Your task to perform on an android device: Search for "razer blade" on bestbuy, select the first entry, add it to the cart, then select checkout. Image 0: 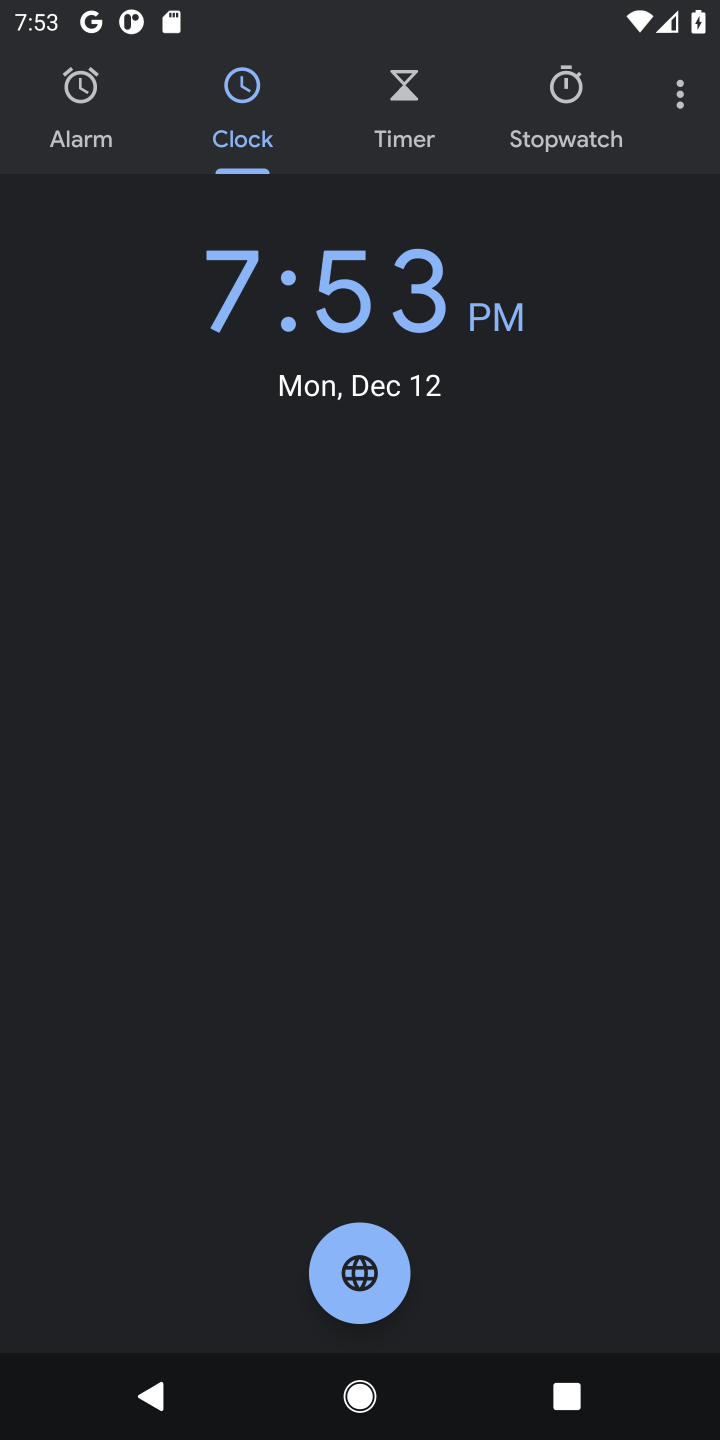
Step 0: press home button
Your task to perform on an android device: Search for "razer blade" on bestbuy, select the first entry, add it to the cart, then select checkout. Image 1: 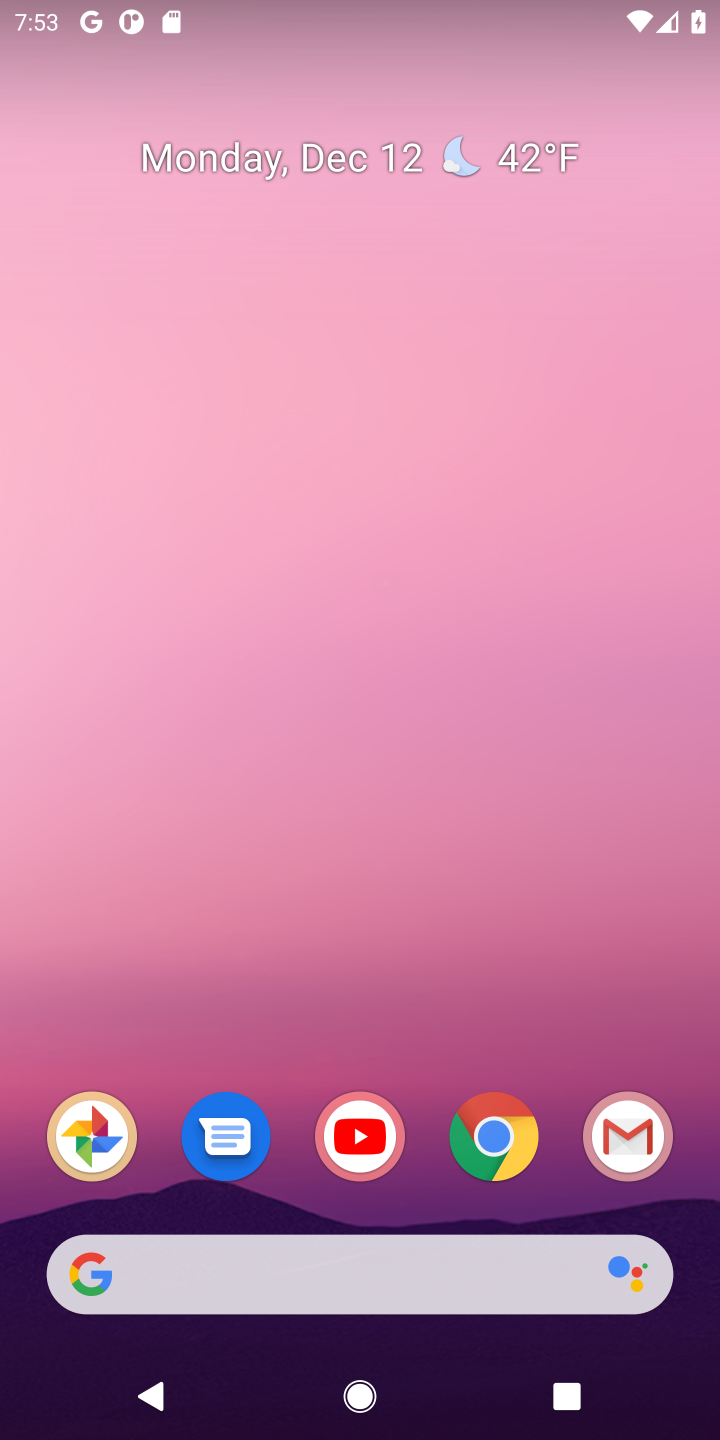
Step 1: click (493, 1140)
Your task to perform on an android device: Search for "razer blade" on bestbuy, select the first entry, add it to the cart, then select checkout. Image 2: 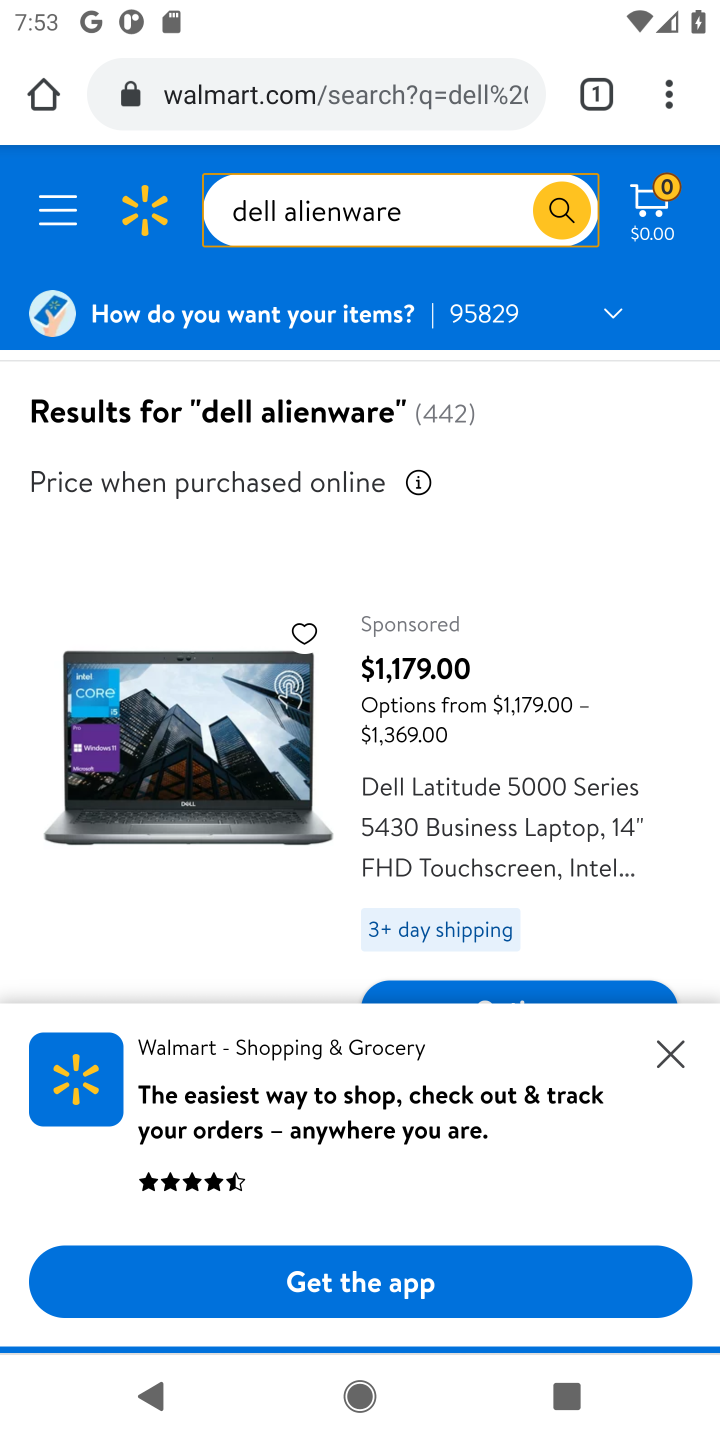
Step 2: click (299, 87)
Your task to perform on an android device: Search for "razer blade" on bestbuy, select the first entry, add it to the cart, then select checkout. Image 3: 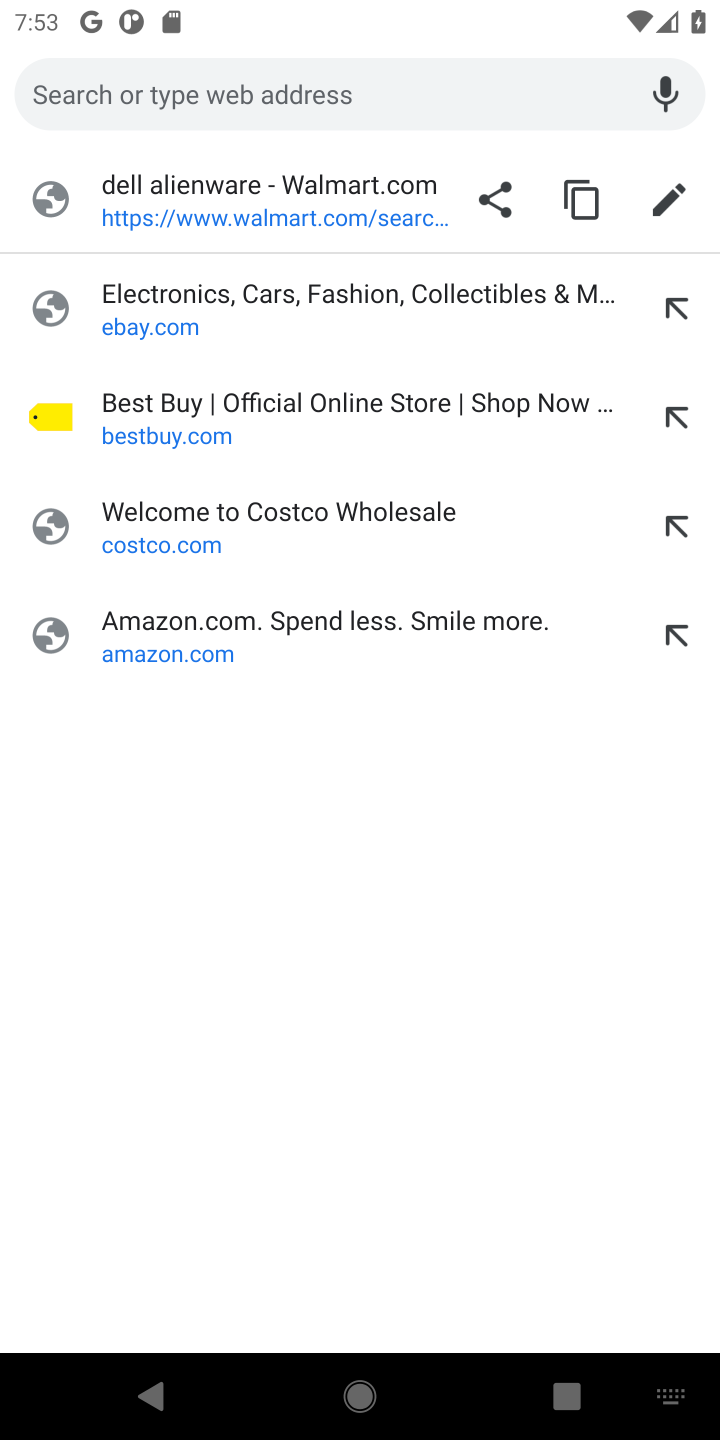
Step 3: click (124, 416)
Your task to perform on an android device: Search for "razer blade" on bestbuy, select the first entry, add it to the cart, then select checkout. Image 4: 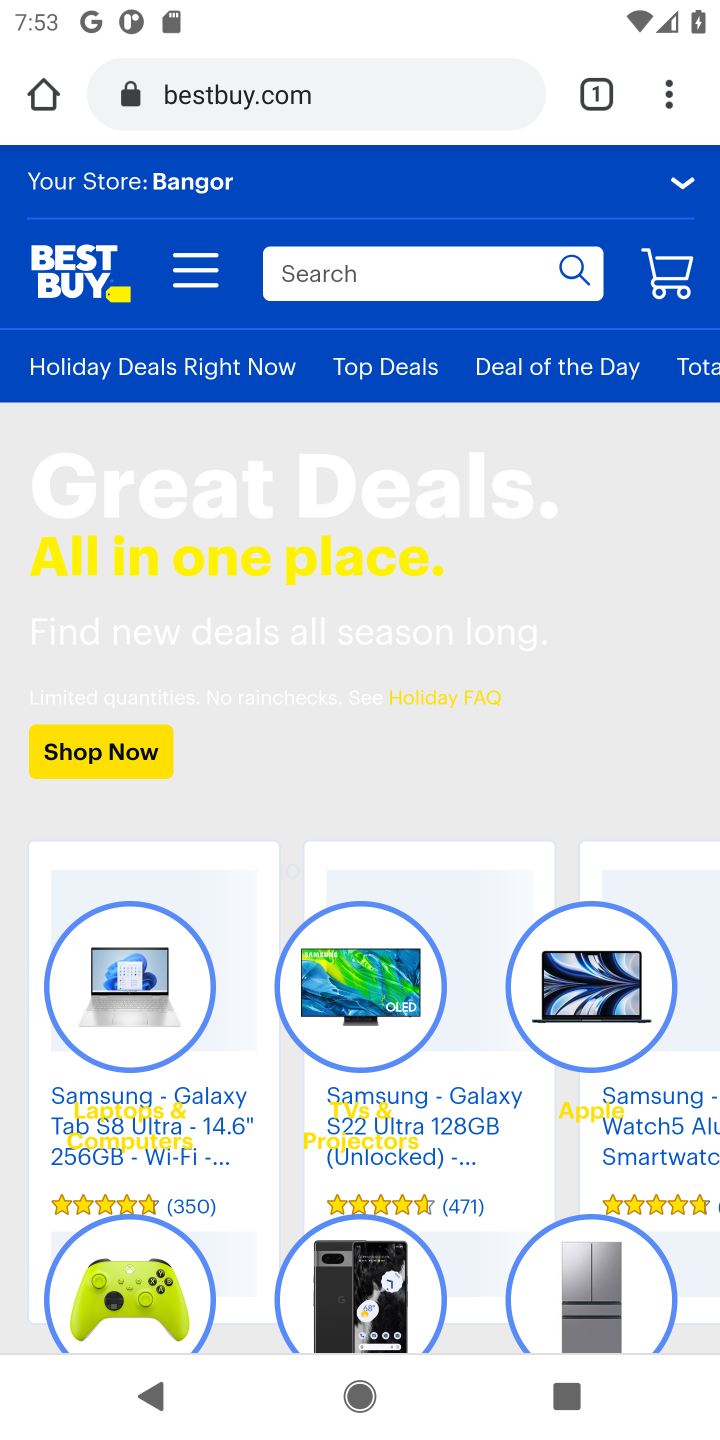
Step 4: click (324, 291)
Your task to perform on an android device: Search for "razer blade" on bestbuy, select the first entry, add it to the cart, then select checkout. Image 5: 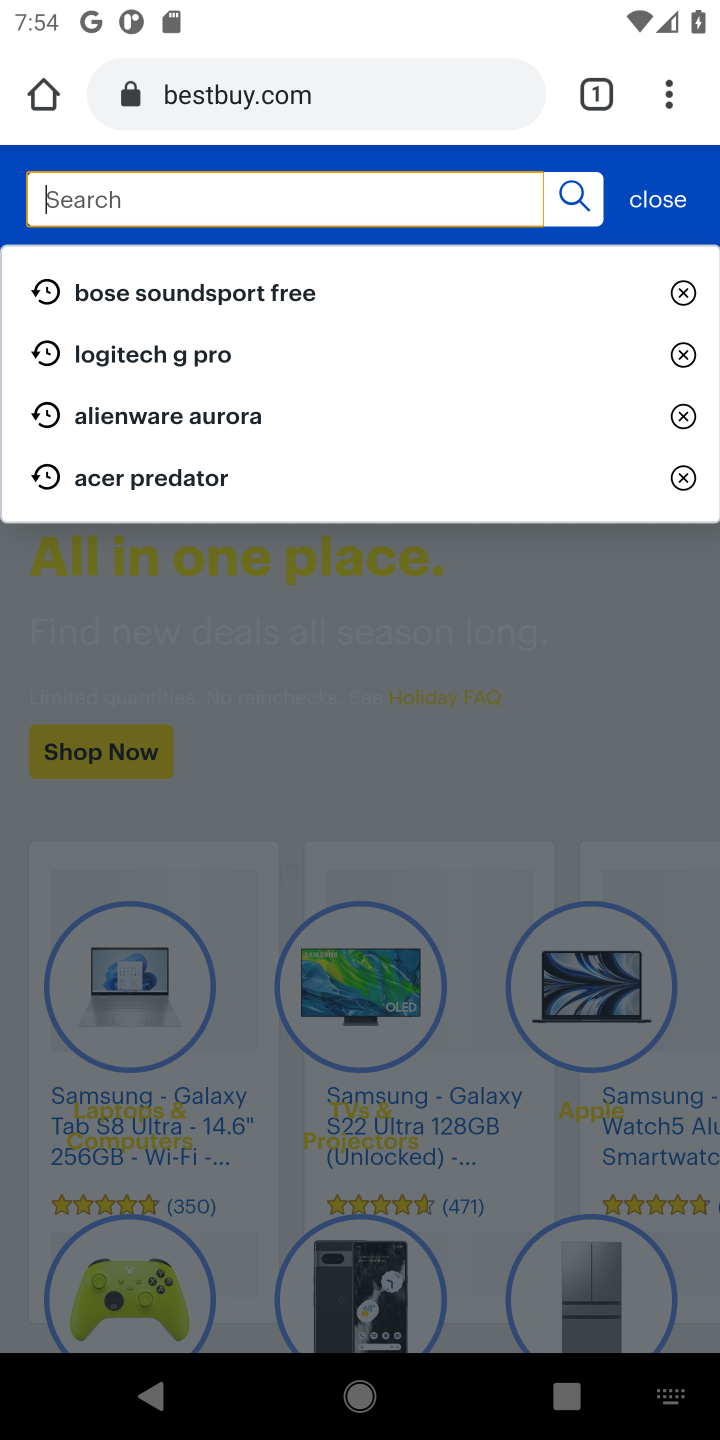
Step 5: type "razer blade"
Your task to perform on an android device: Search for "razer blade" on bestbuy, select the first entry, add it to the cart, then select checkout. Image 6: 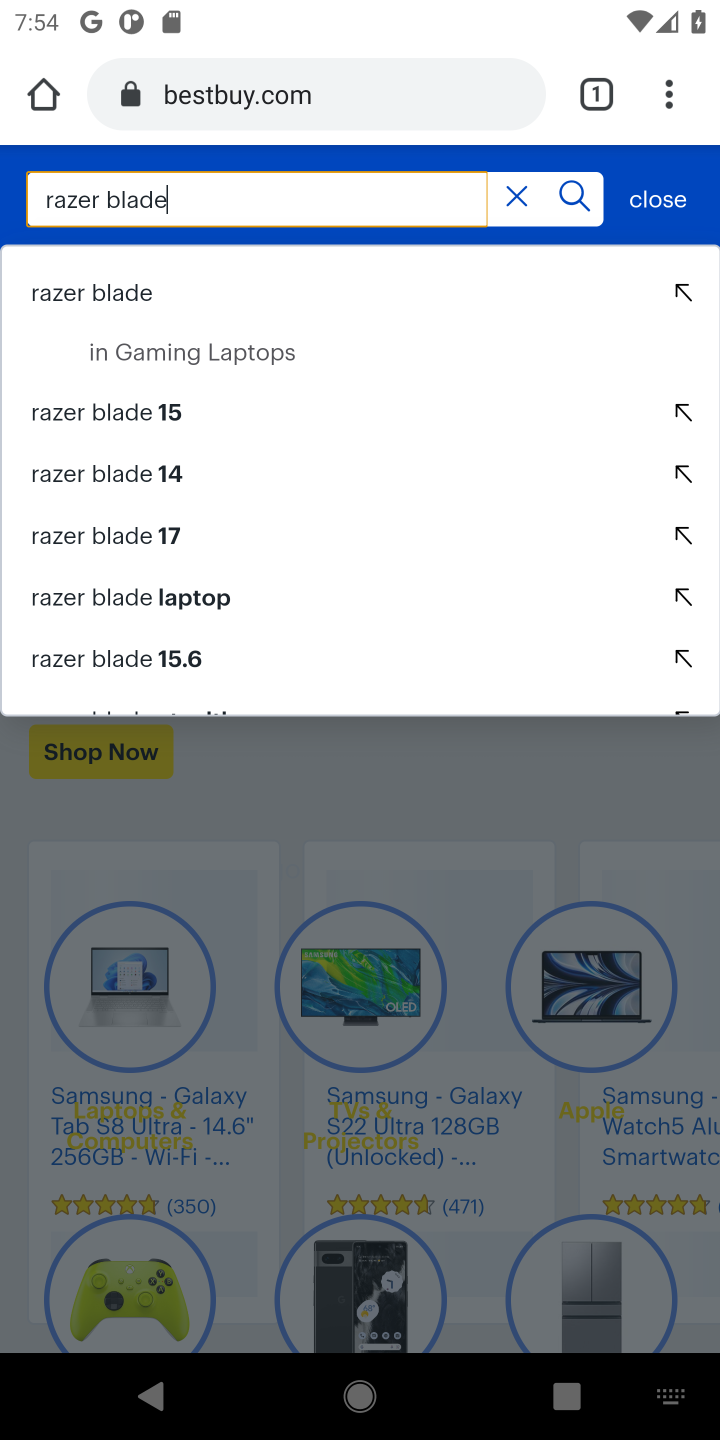
Step 6: click (61, 304)
Your task to perform on an android device: Search for "razer blade" on bestbuy, select the first entry, add it to the cart, then select checkout. Image 7: 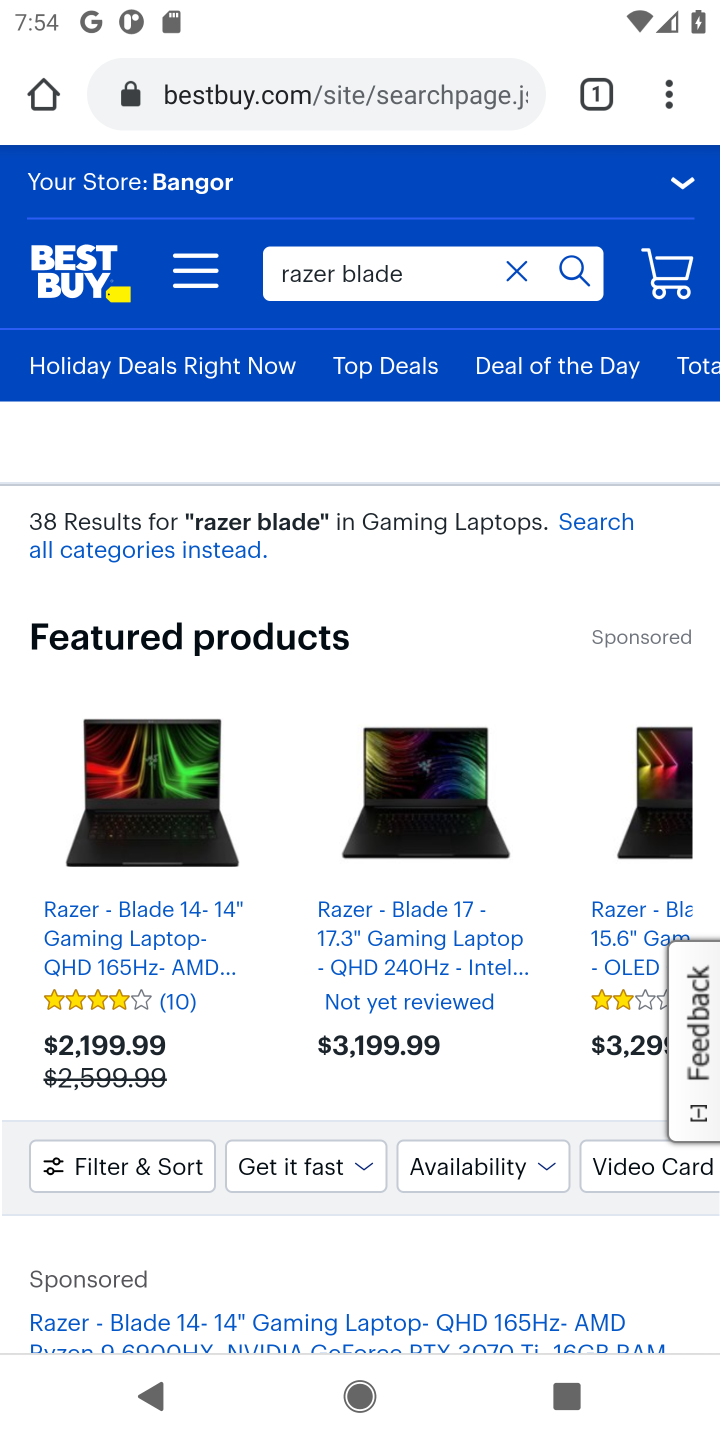
Step 7: drag from (272, 876) to (303, 510)
Your task to perform on an android device: Search for "razer blade" on bestbuy, select the first entry, add it to the cart, then select checkout. Image 8: 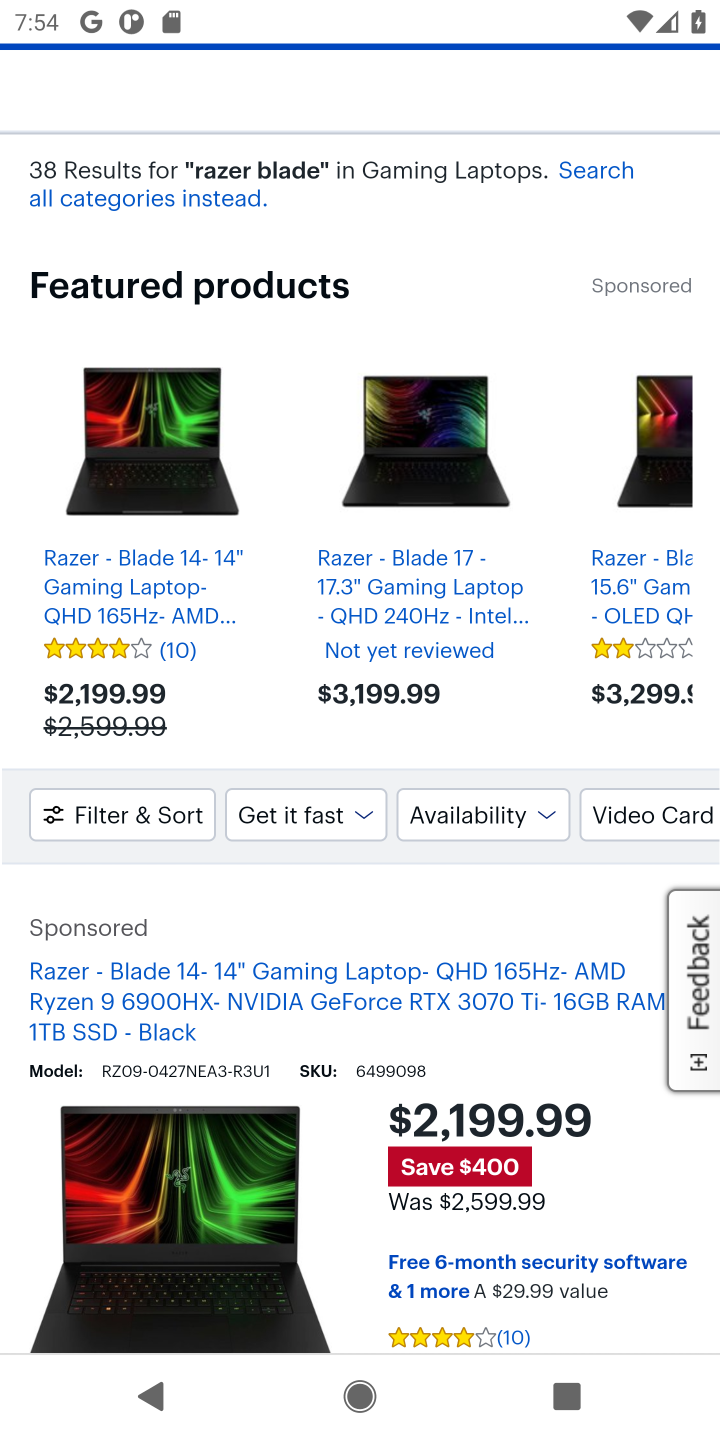
Step 8: drag from (409, 890) to (395, 523)
Your task to perform on an android device: Search for "razer blade" on bestbuy, select the first entry, add it to the cart, then select checkout. Image 9: 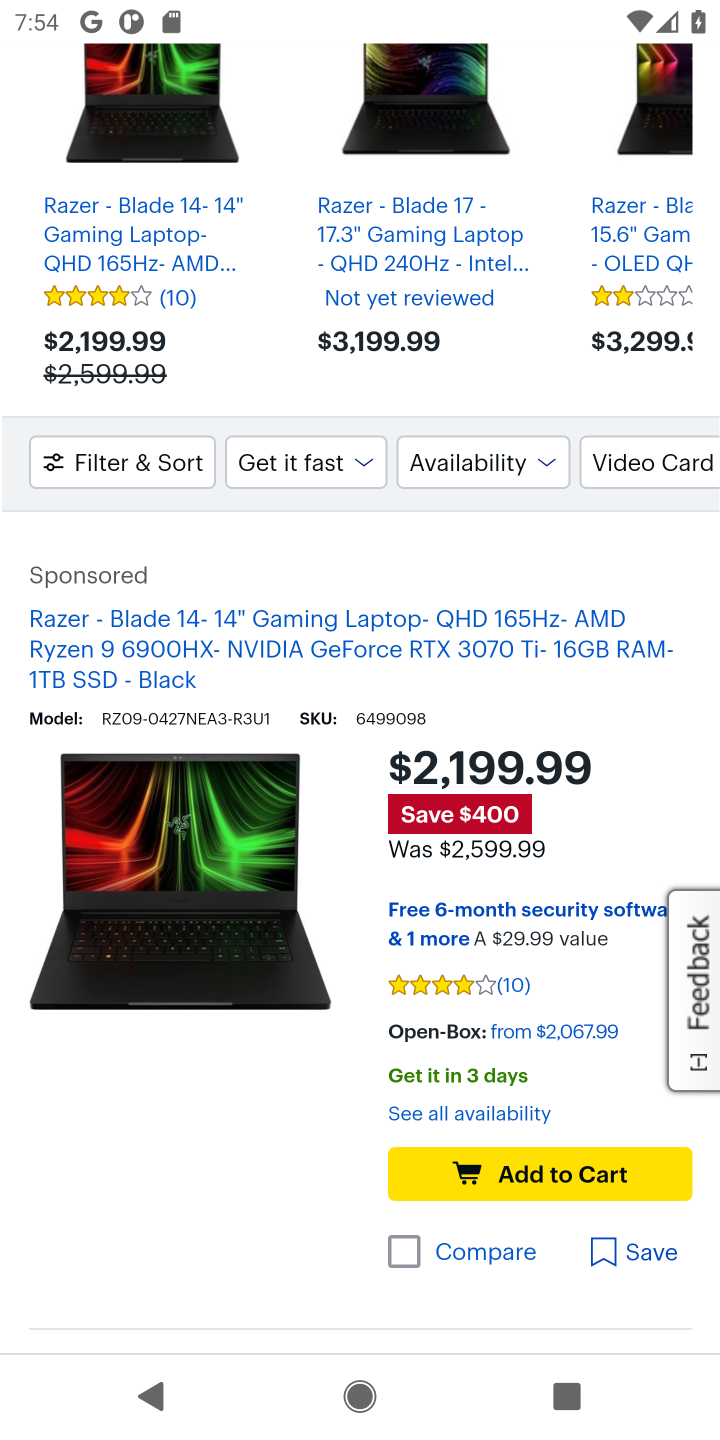
Step 9: click (508, 1181)
Your task to perform on an android device: Search for "razer blade" on bestbuy, select the first entry, add it to the cart, then select checkout. Image 10: 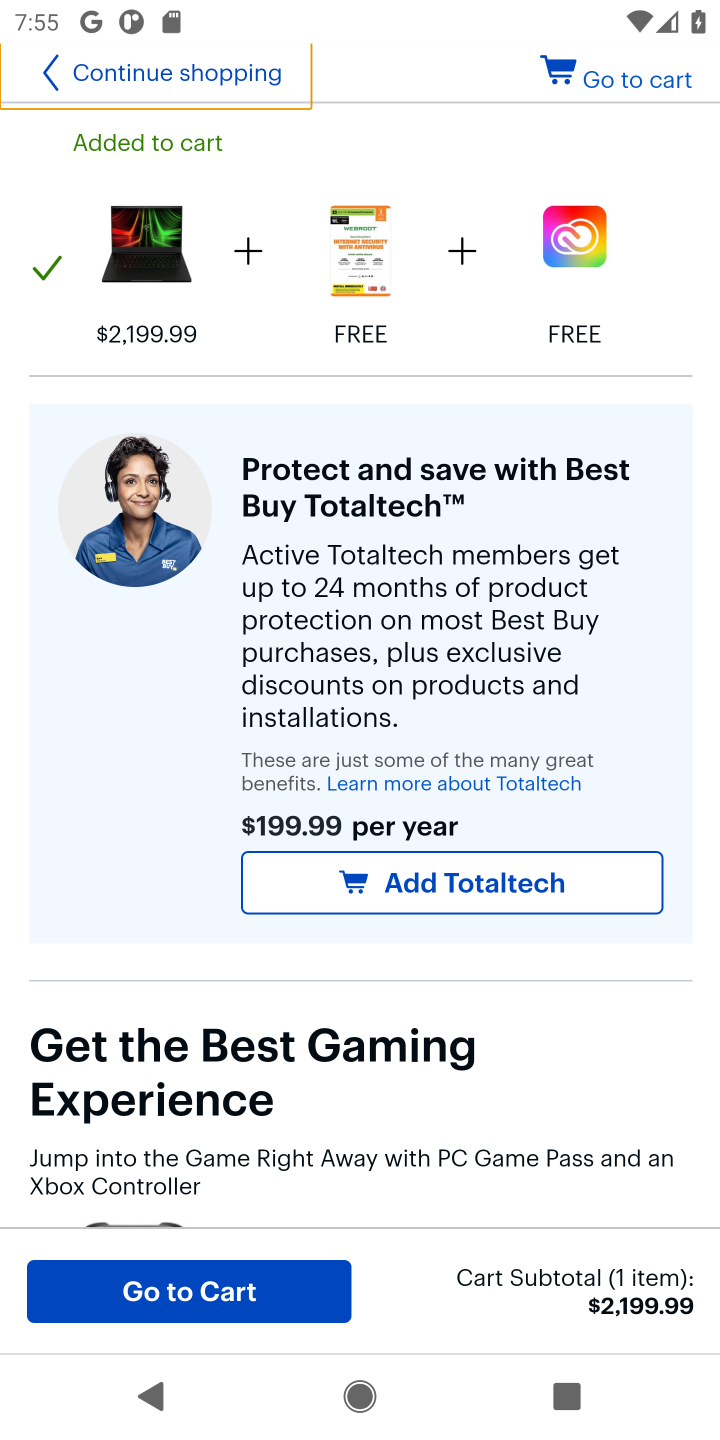
Step 10: click (614, 83)
Your task to perform on an android device: Search for "razer blade" on bestbuy, select the first entry, add it to the cart, then select checkout. Image 11: 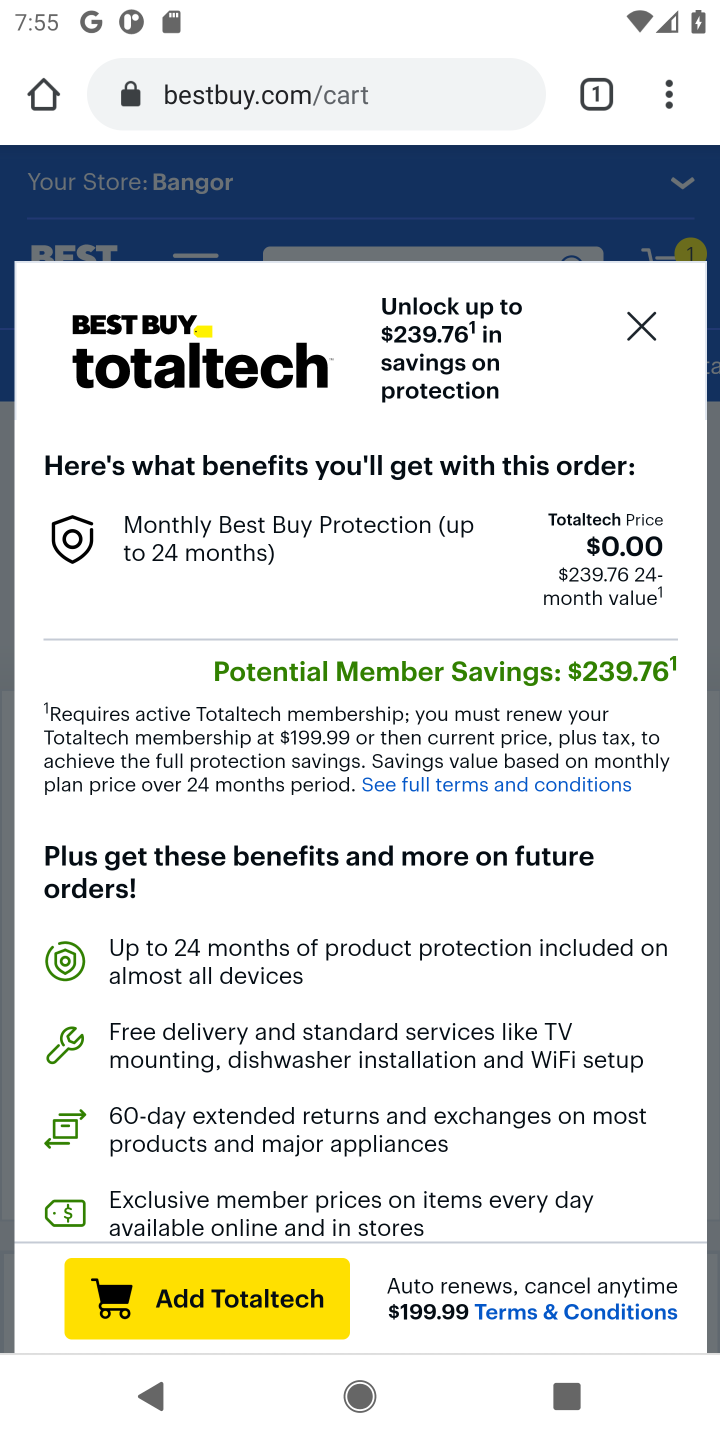
Step 11: click (635, 334)
Your task to perform on an android device: Search for "razer blade" on bestbuy, select the first entry, add it to the cart, then select checkout. Image 12: 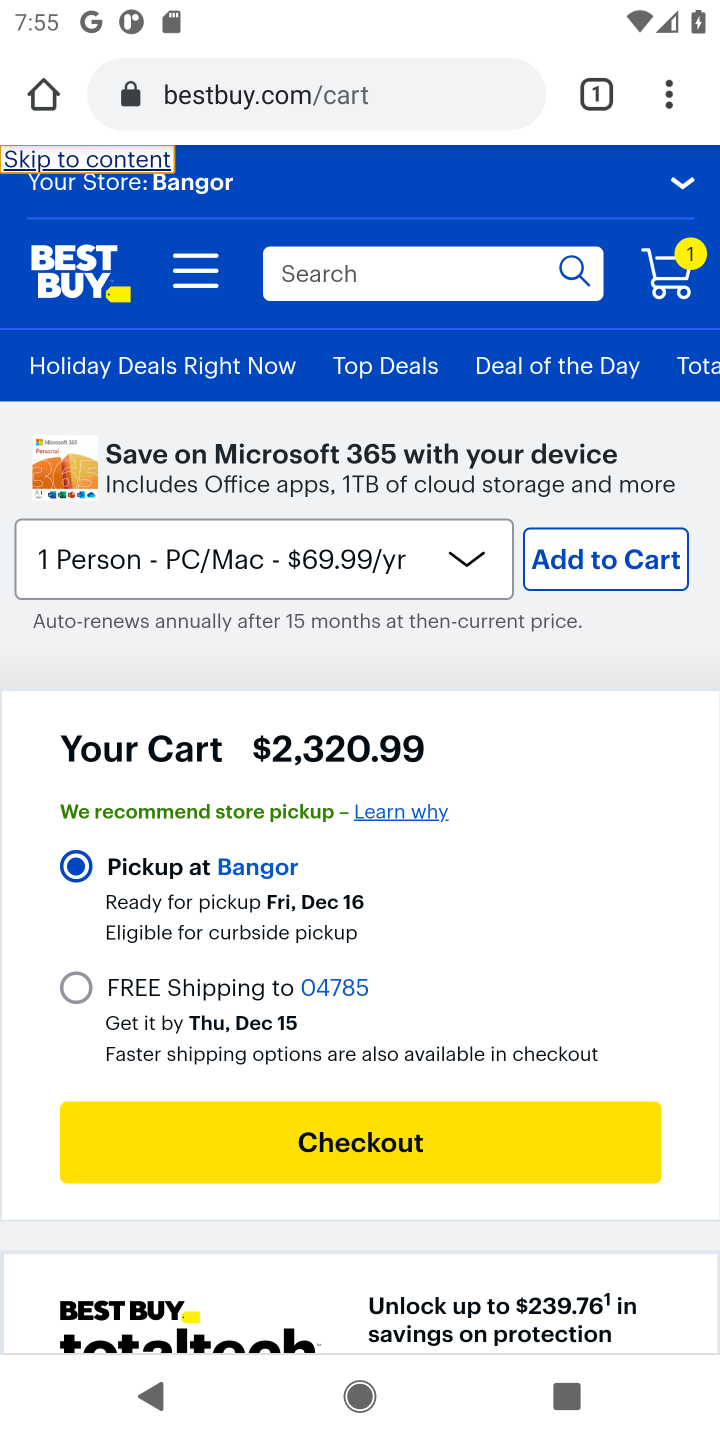
Step 12: click (296, 1142)
Your task to perform on an android device: Search for "razer blade" on bestbuy, select the first entry, add it to the cart, then select checkout. Image 13: 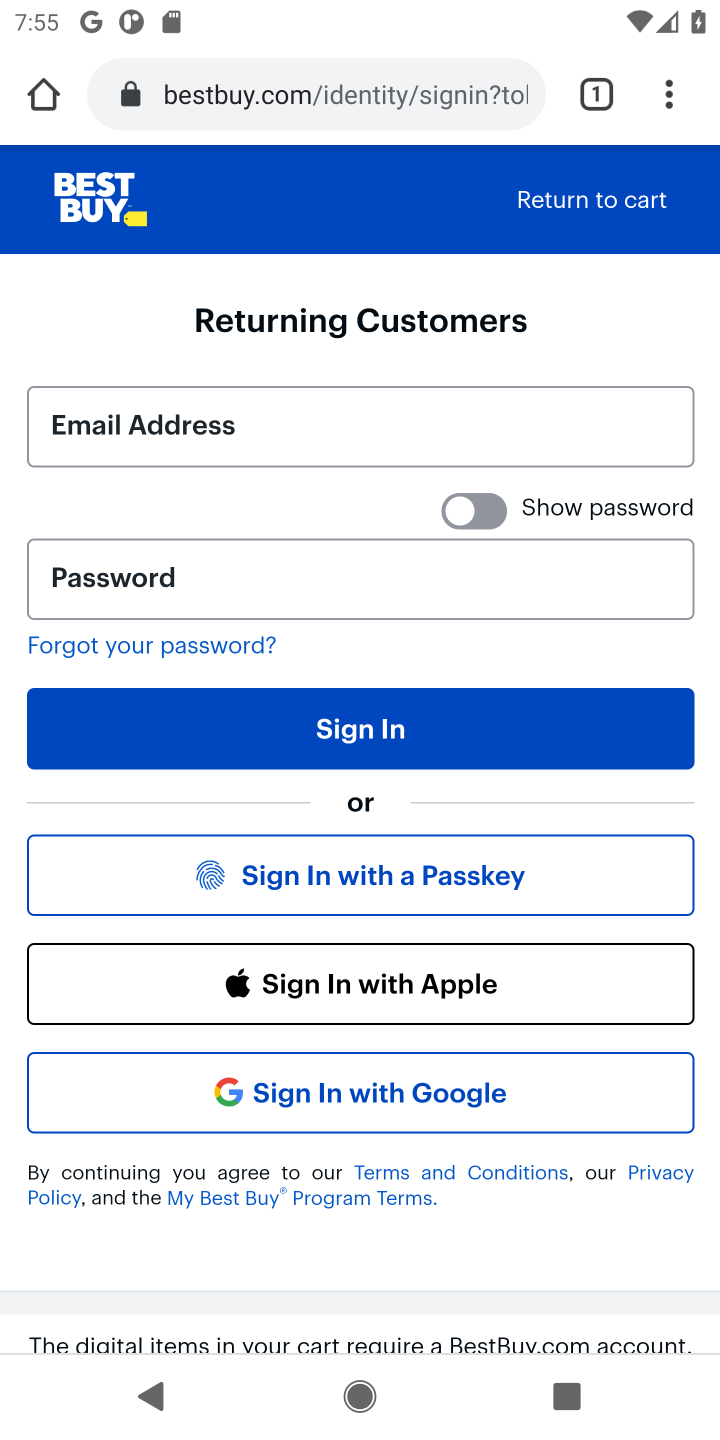
Step 13: task complete